Your task to perform on an android device: Open the web browser Image 0: 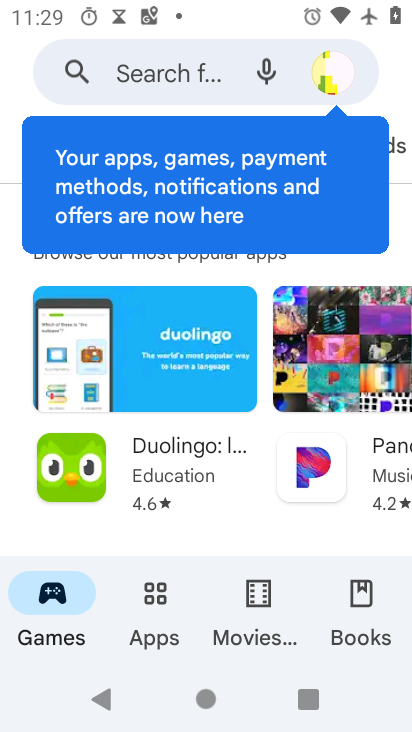
Step 0: press back button
Your task to perform on an android device: Open the web browser Image 1: 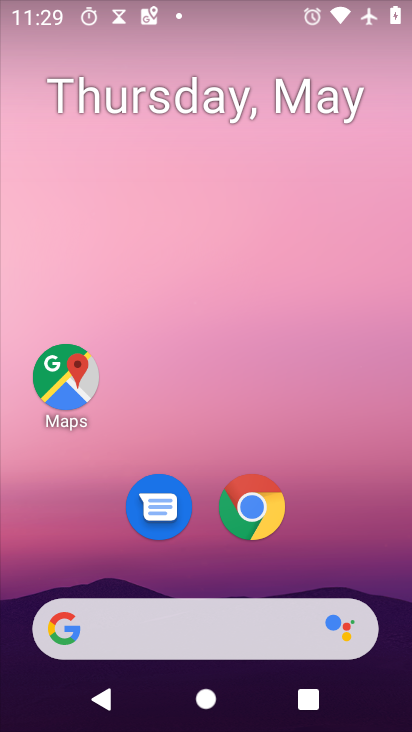
Step 1: drag from (345, 516) to (261, 78)
Your task to perform on an android device: Open the web browser Image 2: 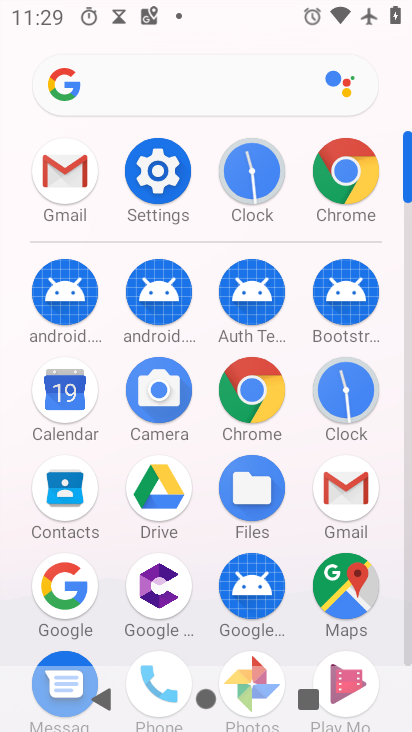
Step 2: click (249, 386)
Your task to perform on an android device: Open the web browser Image 3: 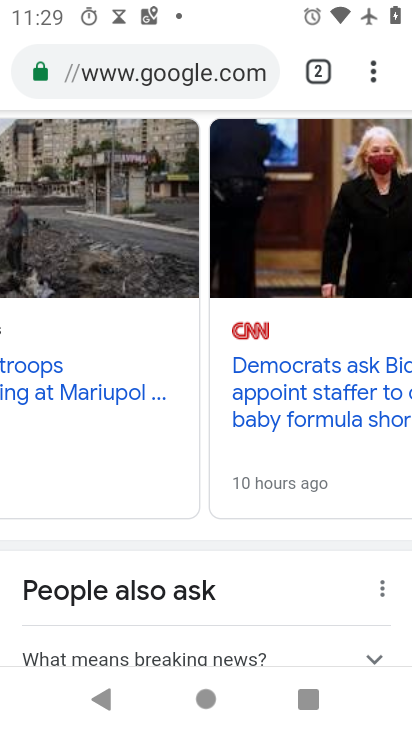
Step 3: task complete